Your task to perform on an android device: turn off data saver in the chrome app Image 0: 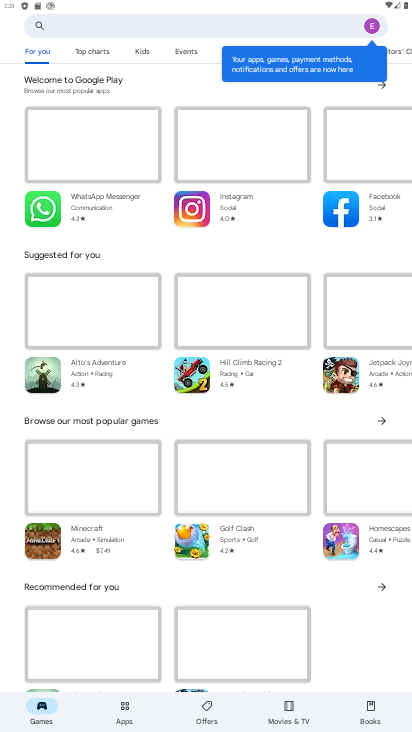
Step 0: press home button
Your task to perform on an android device: turn off data saver in the chrome app Image 1: 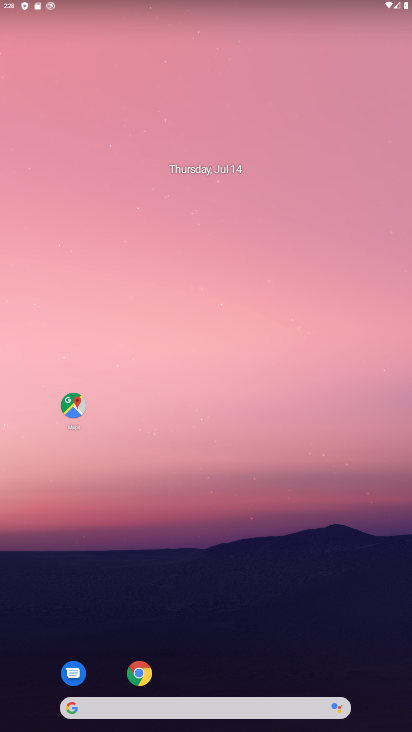
Step 1: drag from (248, 632) to (329, 204)
Your task to perform on an android device: turn off data saver in the chrome app Image 2: 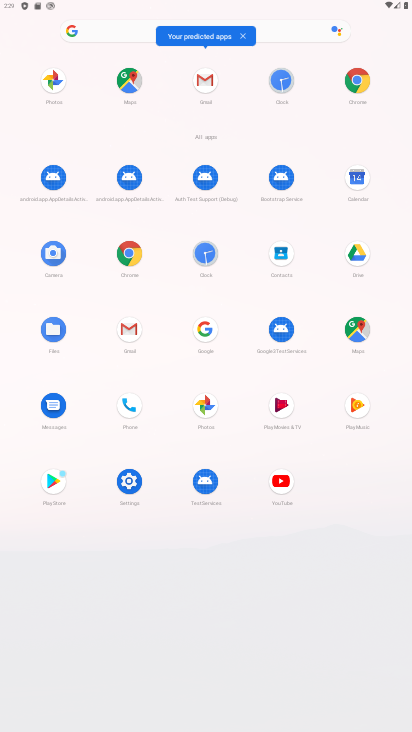
Step 2: click (132, 264)
Your task to perform on an android device: turn off data saver in the chrome app Image 3: 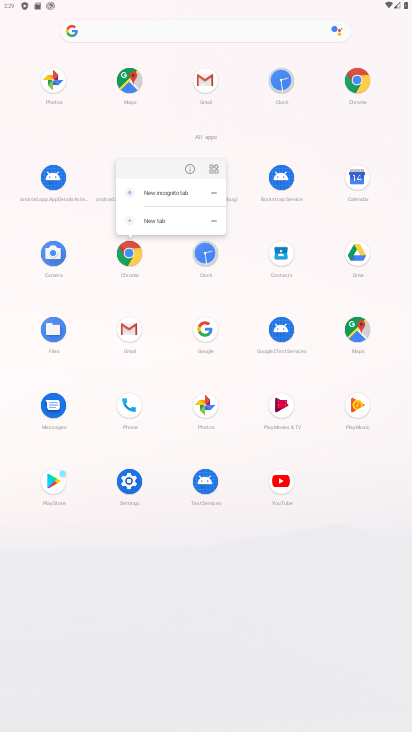
Step 3: click (123, 260)
Your task to perform on an android device: turn off data saver in the chrome app Image 4: 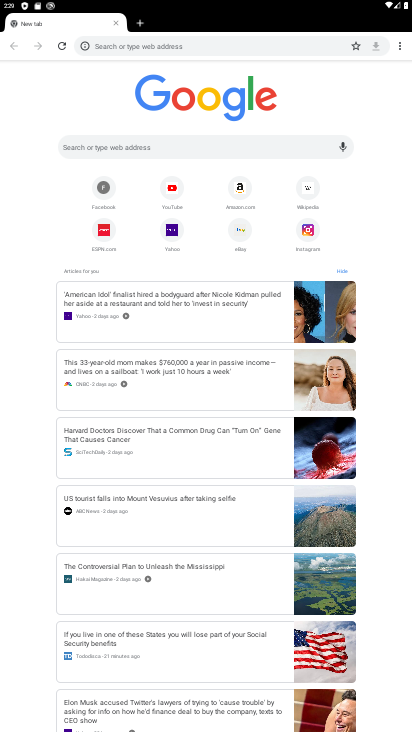
Step 4: drag from (403, 49) to (374, 212)
Your task to perform on an android device: turn off data saver in the chrome app Image 5: 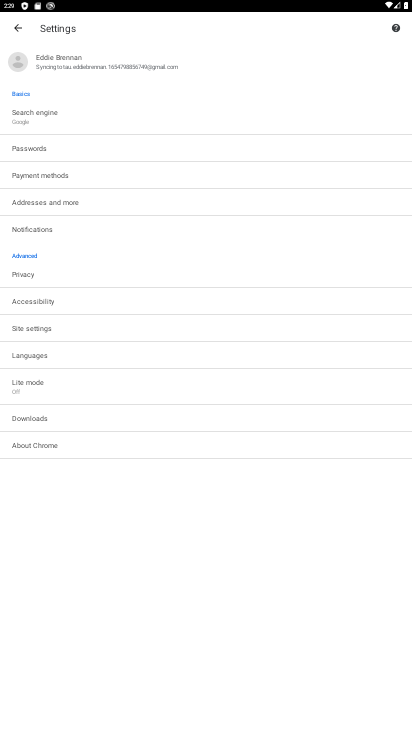
Step 5: click (64, 388)
Your task to perform on an android device: turn off data saver in the chrome app Image 6: 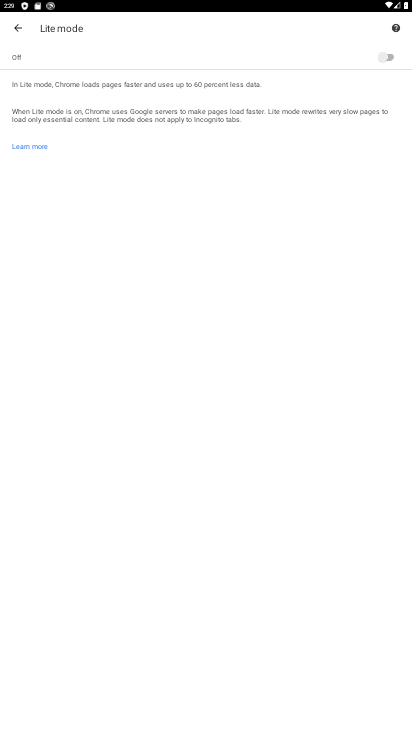
Step 6: task complete